Your task to perform on an android device: move a message to another label in the gmail app Image 0: 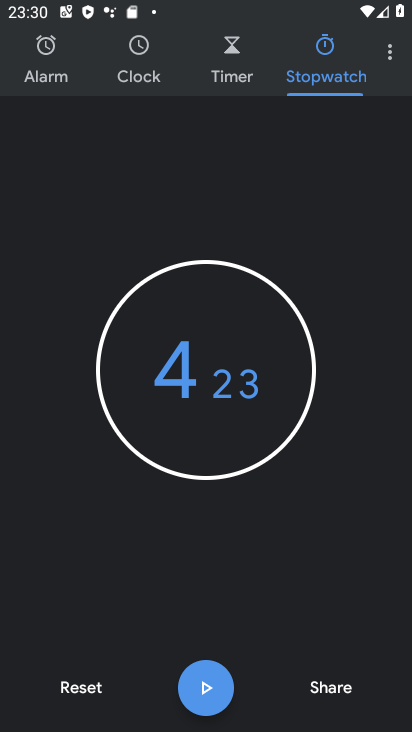
Step 0: press home button
Your task to perform on an android device: move a message to another label in the gmail app Image 1: 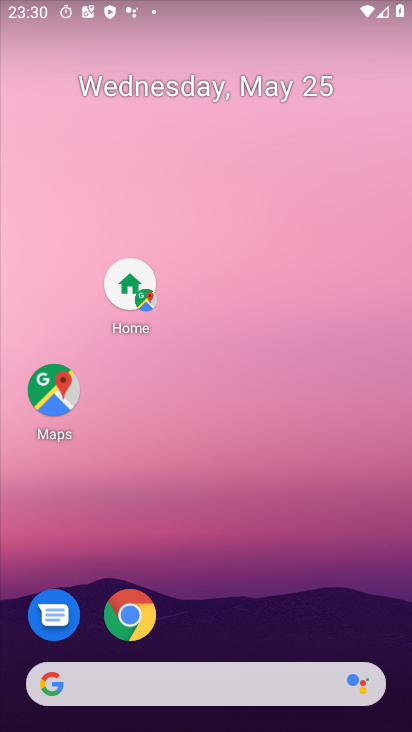
Step 1: drag from (221, 645) to (227, 295)
Your task to perform on an android device: move a message to another label in the gmail app Image 2: 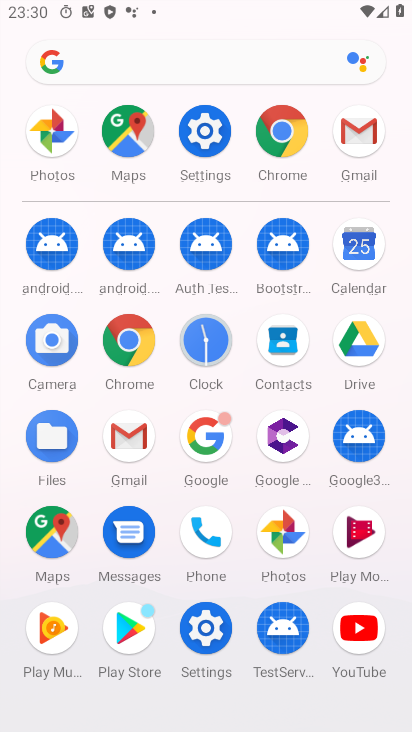
Step 2: click (349, 137)
Your task to perform on an android device: move a message to another label in the gmail app Image 3: 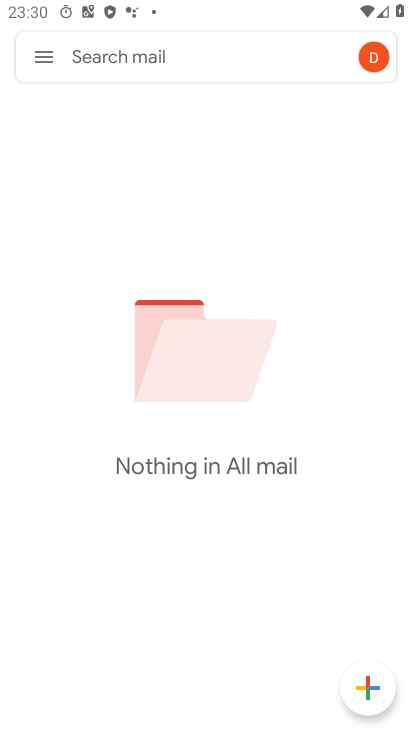
Step 3: click (53, 70)
Your task to perform on an android device: move a message to another label in the gmail app Image 4: 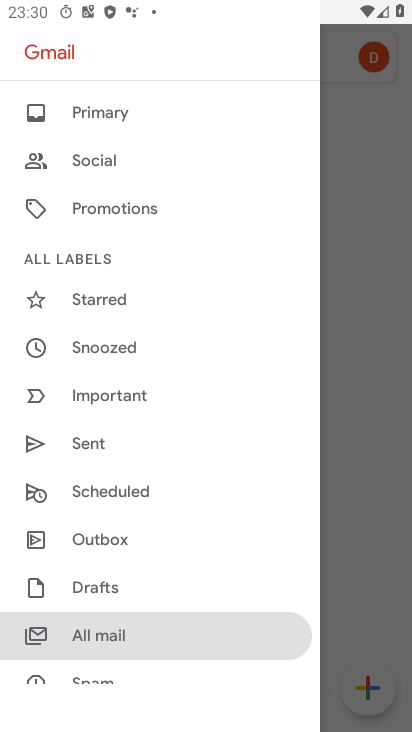
Step 4: click (124, 642)
Your task to perform on an android device: move a message to another label in the gmail app Image 5: 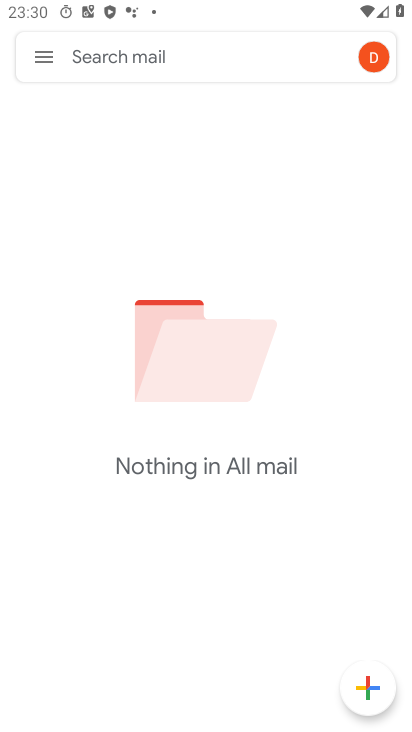
Step 5: task complete